Your task to perform on an android device: turn off priority inbox in the gmail app Image 0: 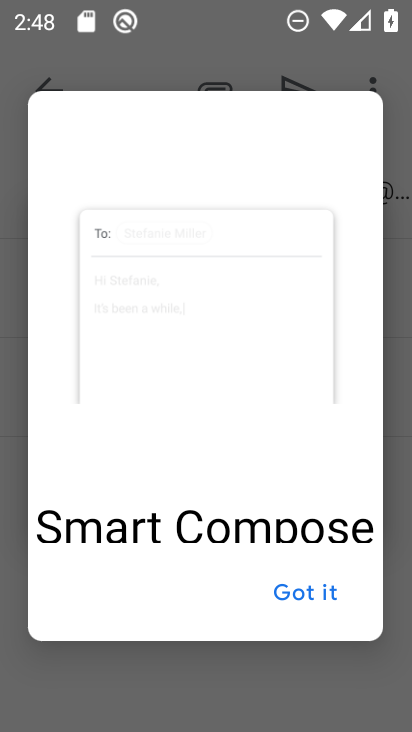
Step 0: click (278, 609)
Your task to perform on an android device: turn off priority inbox in the gmail app Image 1: 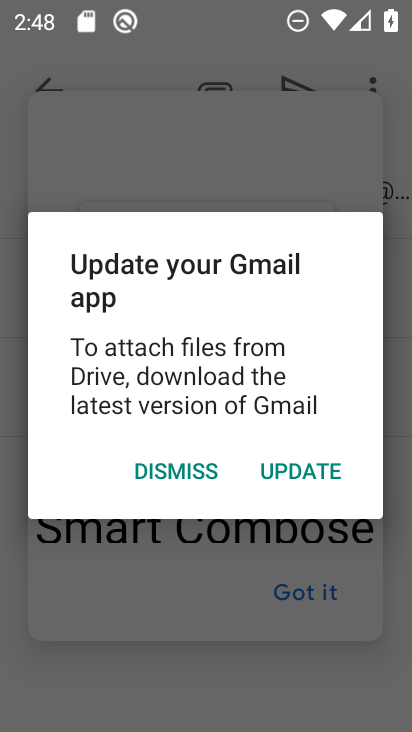
Step 1: click (192, 455)
Your task to perform on an android device: turn off priority inbox in the gmail app Image 2: 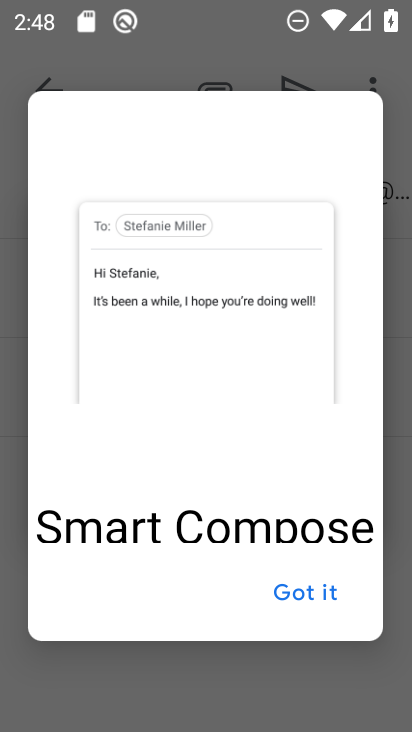
Step 2: click (312, 603)
Your task to perform on an android device: turn off priority inbox in the gmail app Image 3: 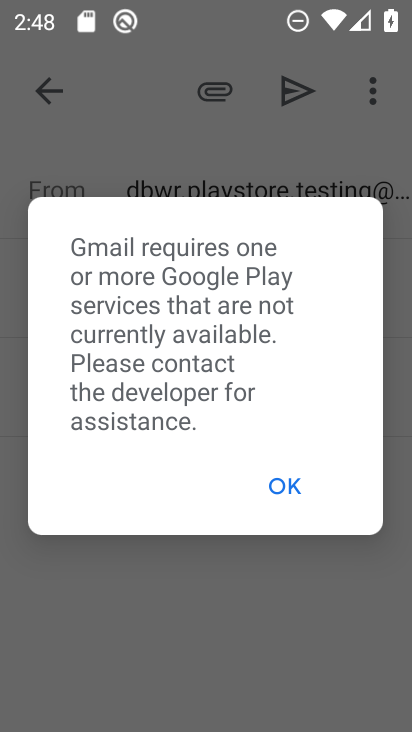
Step 3: click (291, 487)
Your task to perform on an android device: turn off priority inbox in the gmail app Image 4: 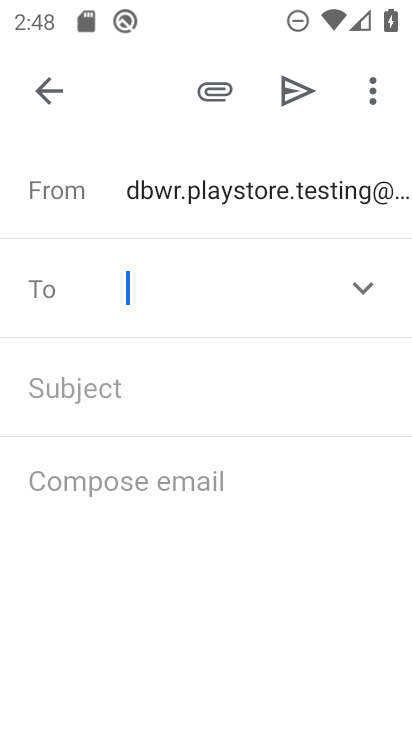
Step 4: click (48, 56)
Your task to perform on an android device: turn off priority inbox in the gmail app Image 5: 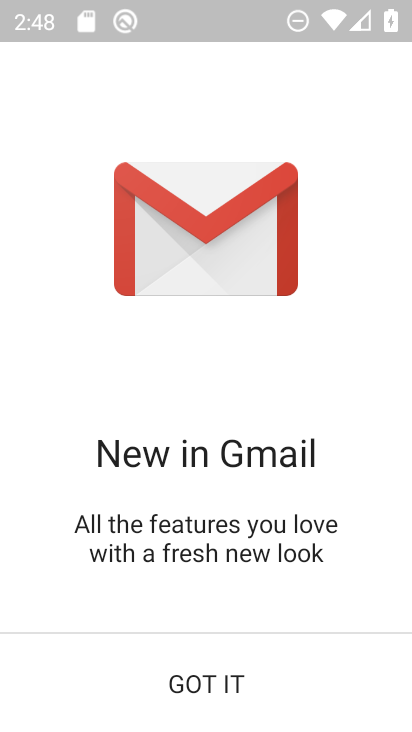
Step 5: click (176, 692)
Your task to perform on an android device: turn off priority inbox in the gmail app Image 6: 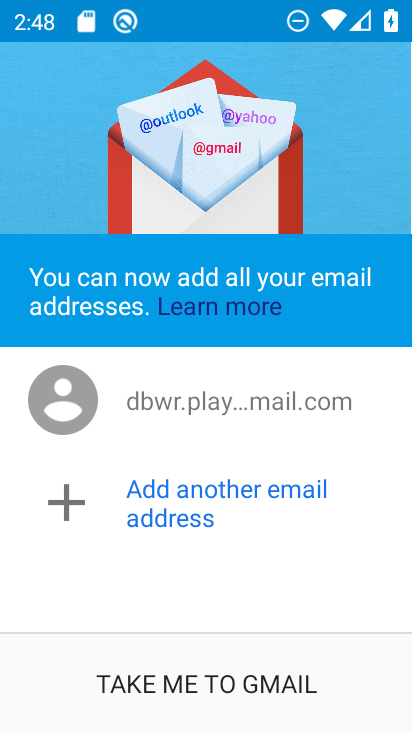
Step 6: click (176, 692)
Your task to perform on an android device: turn off priority inbox in the gmail app Image 7: 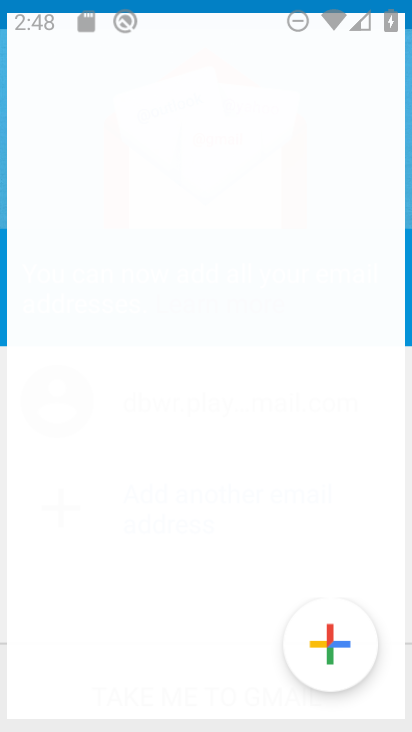
Step 7: click (274, 678)
Your task to perform on an android device: turn off priority inbox in the gmail app Image 8: 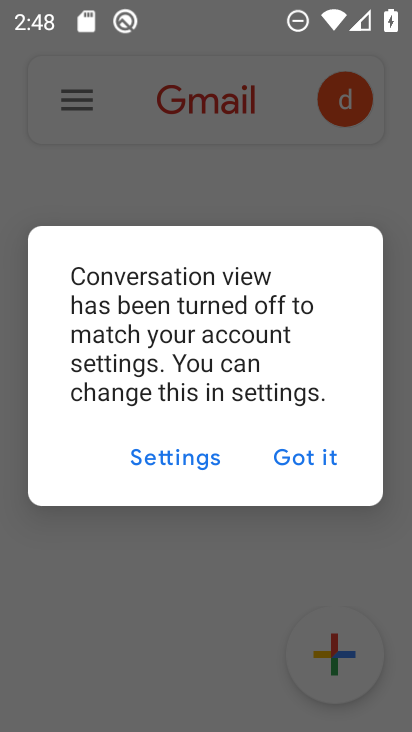
Step 8: click (295, 449)
Your task to perform on an android device: turn off priority inbox in the gmail app Image 9: 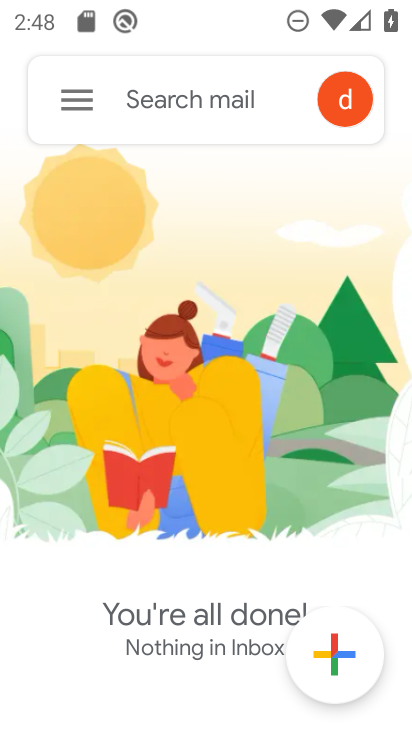
Step 9: click (89, 96)
Your task to perform on an android device: turn off priority inbox in the gmail app Image 10: 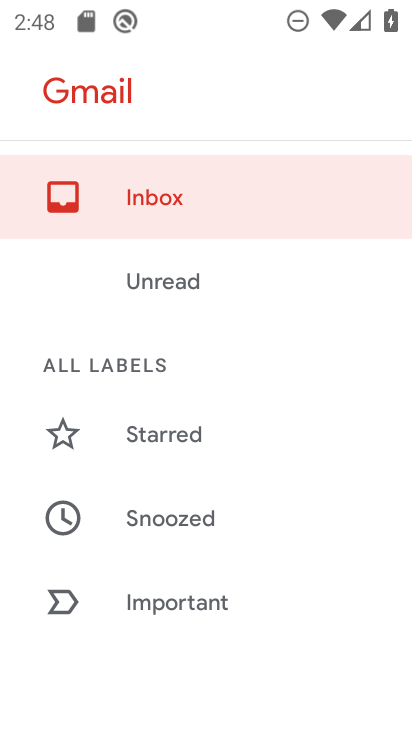
Step 10: drag from (101, 589) to (218, 125)
Your task to perform on an android device: turn off priority inbox in the gmail app Image 11: 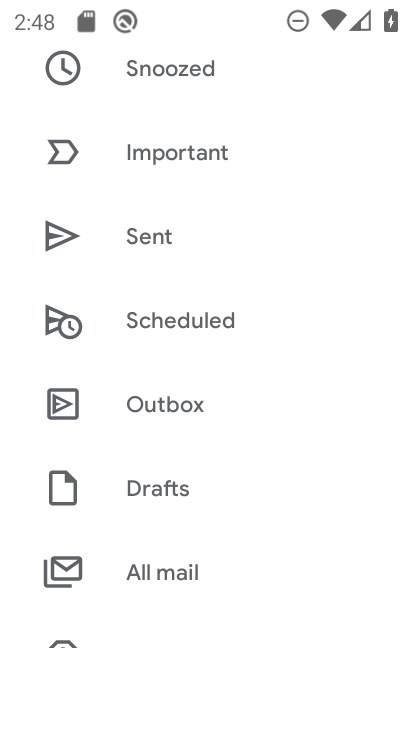
Step 11: drag from (125, 621) to (154, 198)
Your task to perform on an android device: turn off priority inbox in the gmail app Image 12: 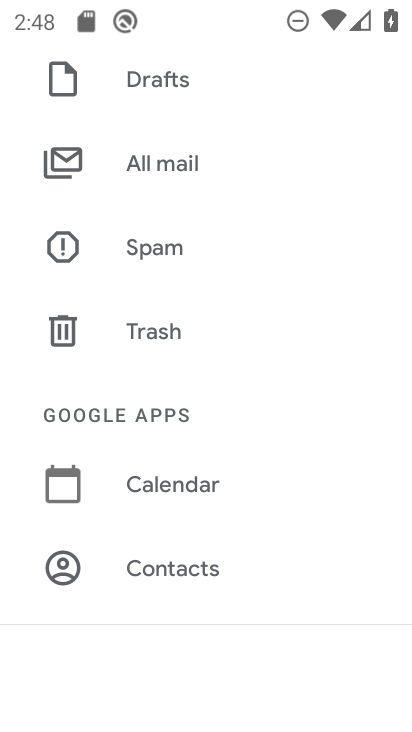
Step 12: drag from (84, 571) to (121, 97)
Your task to perform on an android device: turn off priority inbox in the gmail app Image 13: 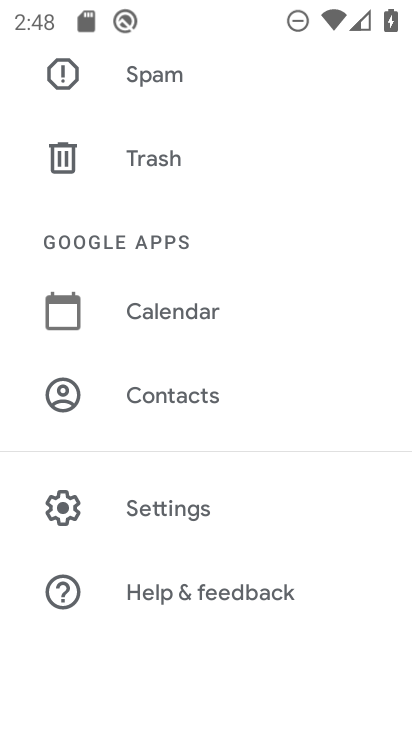
Step 13: click (157, 516)
Your task to perform on an android device: turn off priority inbox in the gmail app Image 14: 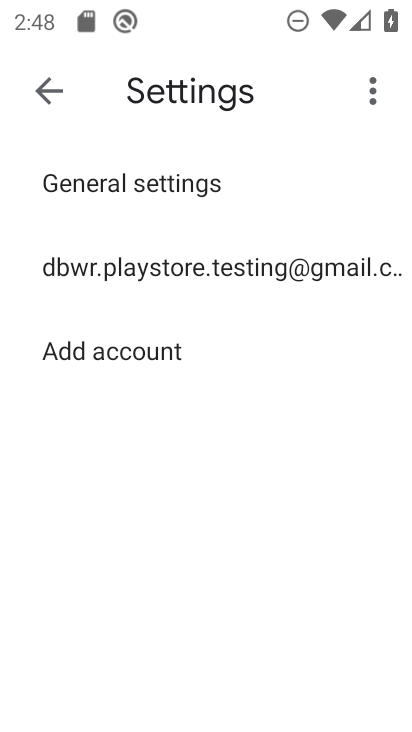
Step 14: click (160, 258)
Your task to perform on an android device: turn off priority inbox in the gmail app Image 15: 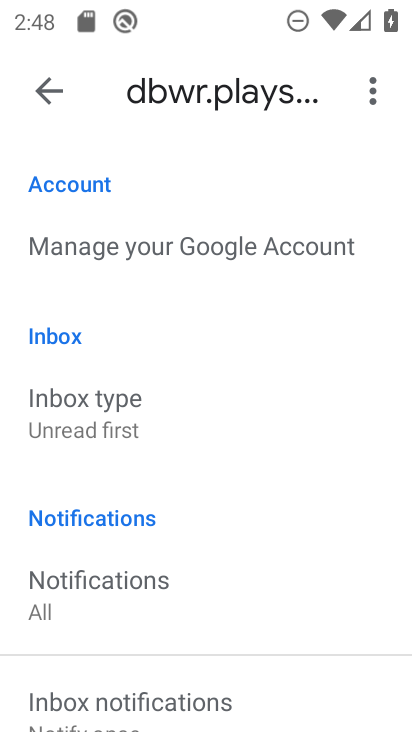
Step 15: click (144, 426)
Your task to perform on an android device: turn off priority inbox in the gmail app Image 16: 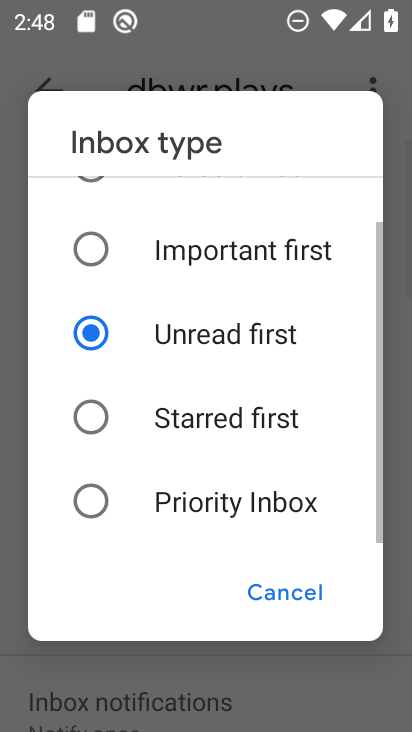
Step 16: click (210, 512)
Your task to perform on an android device: turn off priority inbox in the gmail app Image 17: 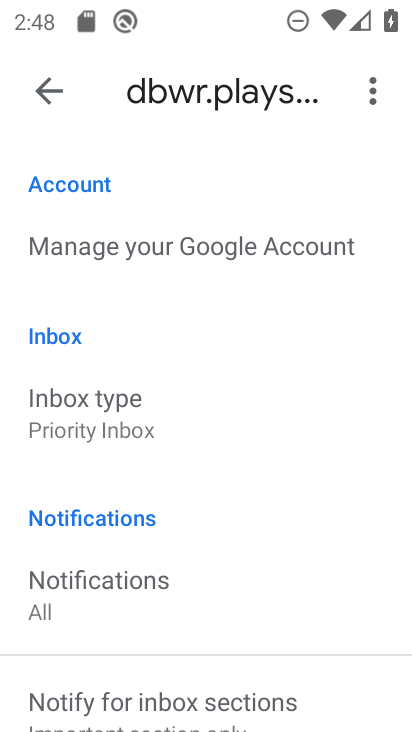
Step 17: task complete